Your task to perform on an android device: toggle notification dots Image 0: 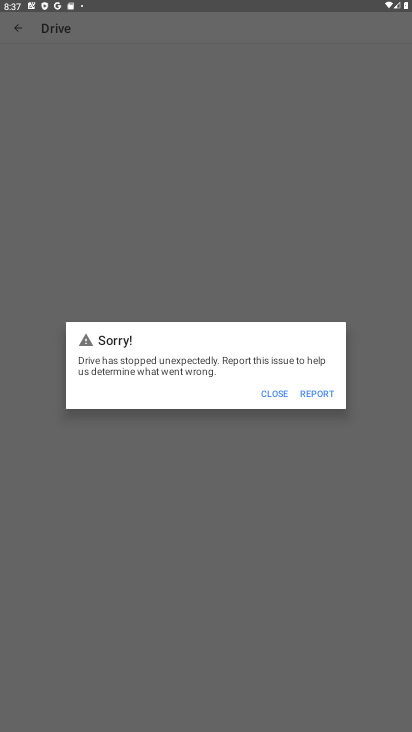
Step 0: click (276, 389)
Your task to perform on an android device: toggle notification dots Image 1: 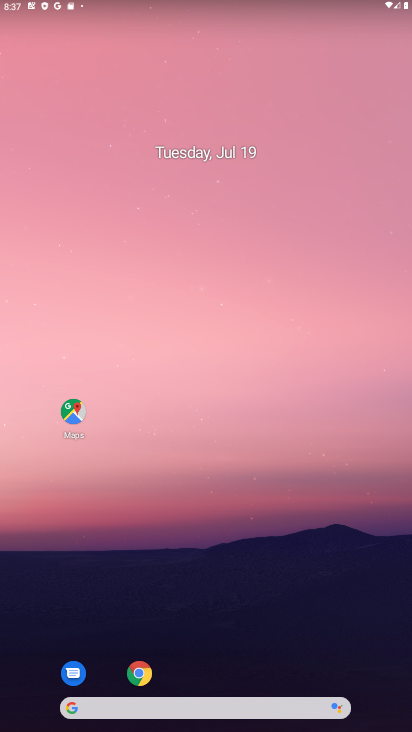
Step 1: drag from (293, 642) to (217, 14)
Your task to perform on an android device: toggle notification dots Image 2: 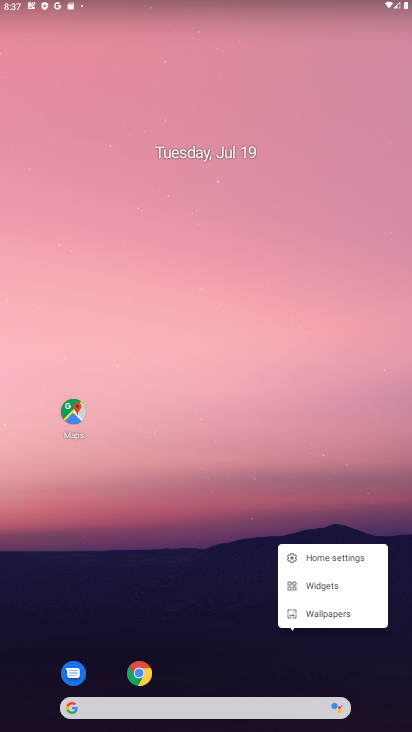
Step 2: click (191, 362)
Your task to perform on an android device: toggle notification dots Image 3: 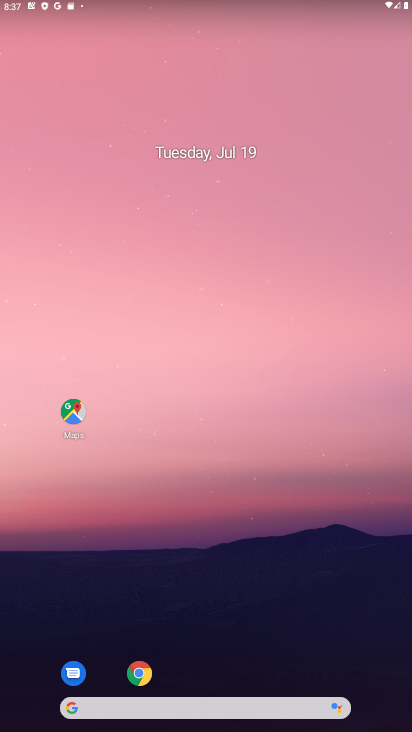
Step 3: drag from (248, 674) to (233, 128)
Your task to perform on an android device: toggle notification dots Image 4: 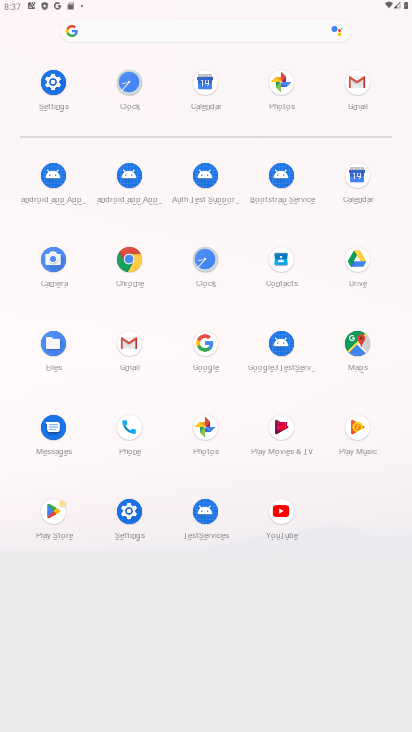
Step 4: click (69, 90)
Your task to perform on an android device: toggle notification dots Image 5: 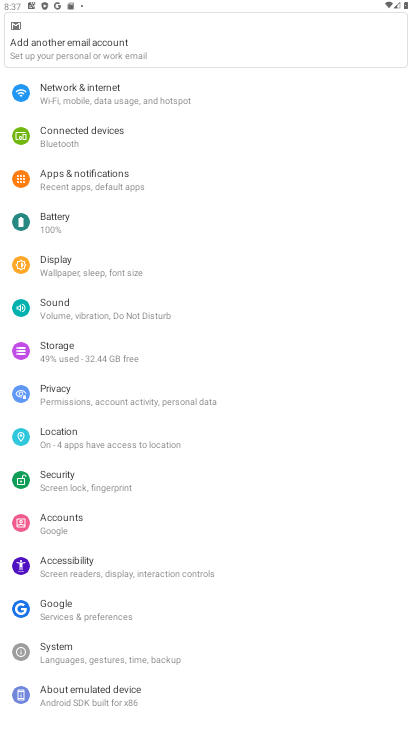
Step 5: click (172, 188)
Your task to perform on an android device: toggle notification dots Image 6: 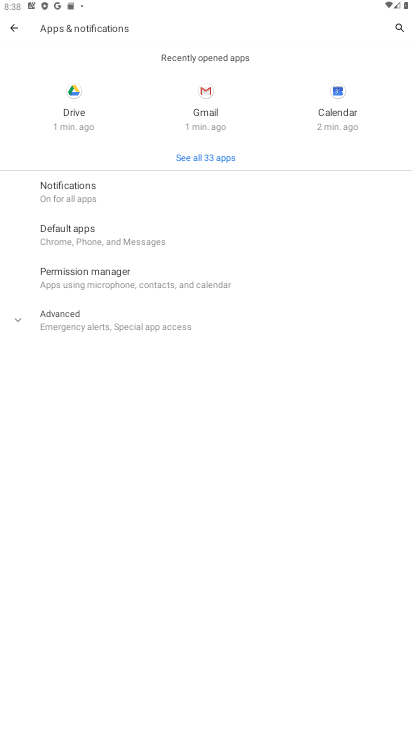
Step 6: task complete